Your task to perform on an android device: search for starred emails in the gmail app Image 0: 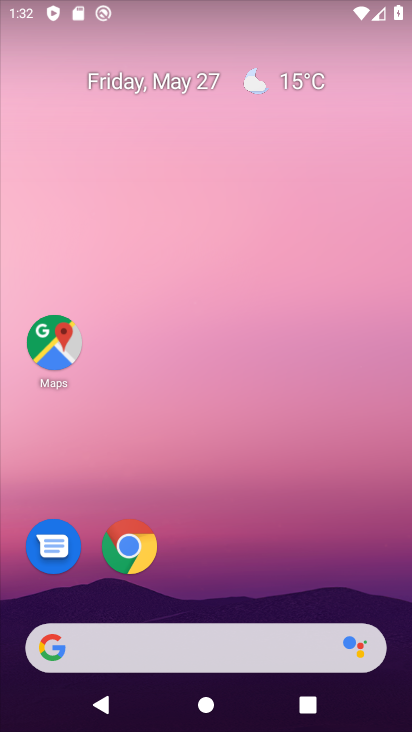
Step 0: drag from (347, 561) to (308, 127)
Your task to perform on an android device: search for starred emails in the gmail app Image 1: 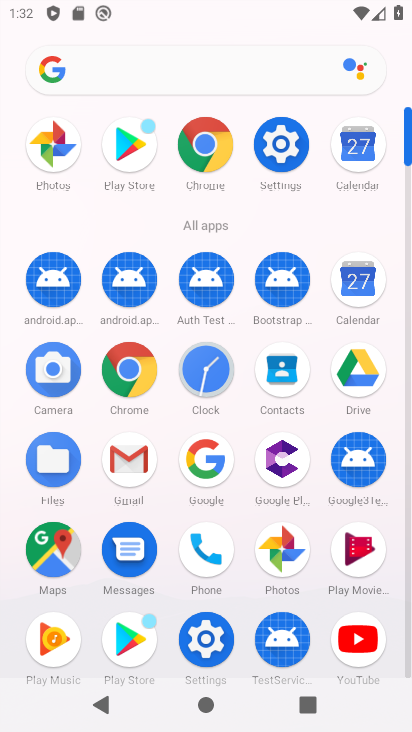
Step 1: click (146, 470)
Your task to perform on an android device: search for starred emails in the gmail app Image 2: 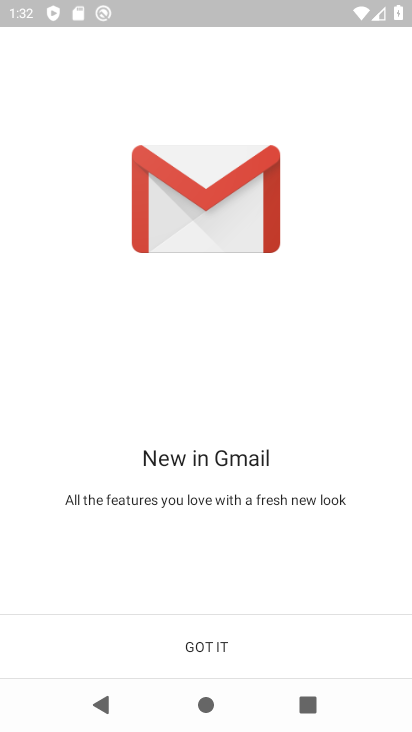
Step 2: click (217, 645)
Your task to perform on an android device: search for starred emails in the gmail app Image 3: 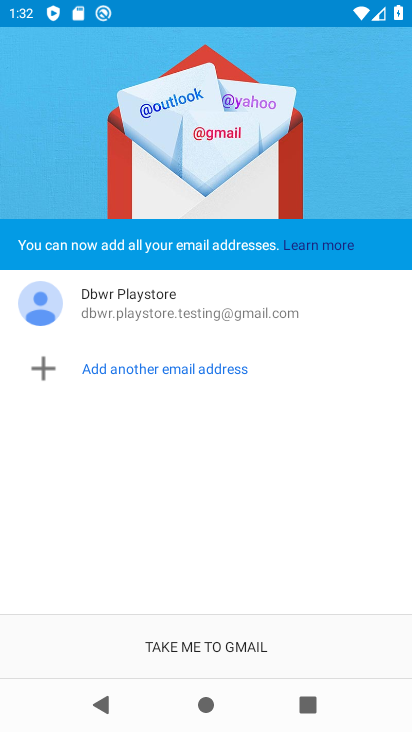
Step 3: click (210, 638)
Your task to perform on an android device: search for starred emails in the gmail app Image 4: 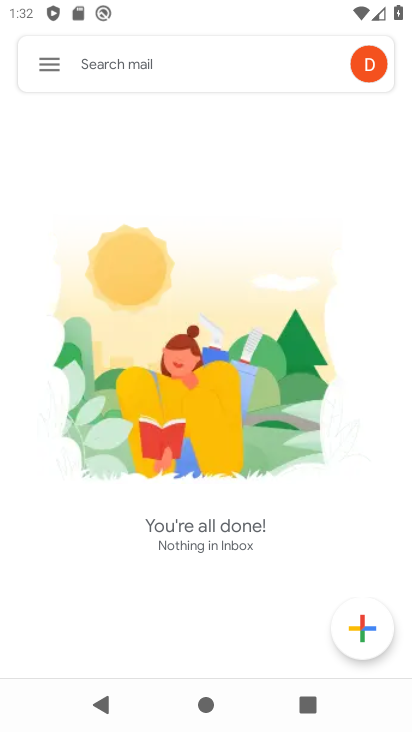
Step 4: click (50, 67)
Your task to perform on an android device: search for starred emails in the gmail app Image 5: 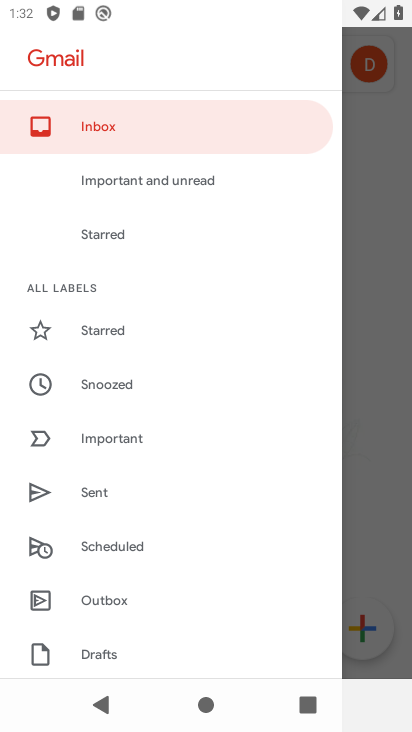
Step 5: click (152, 337)
Your task to perform on an android device: search for starred emails in the gmail app Image 6: 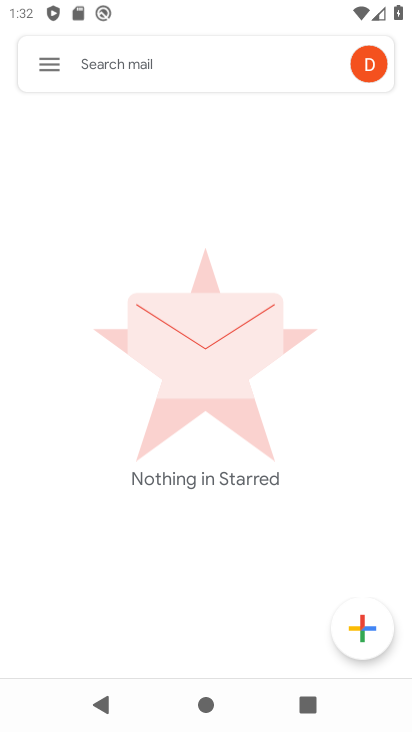
Step 6: task complete